Your task to perform on an android device: Open settings on Google Maps Image 0: 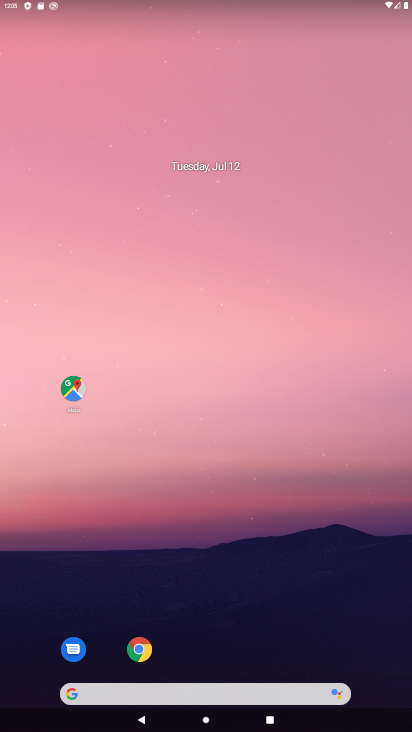
Step 0: drag from (247, 658) to (138, 0)
Your task to perform on an android device: Open settings on Google Maps Image 1: 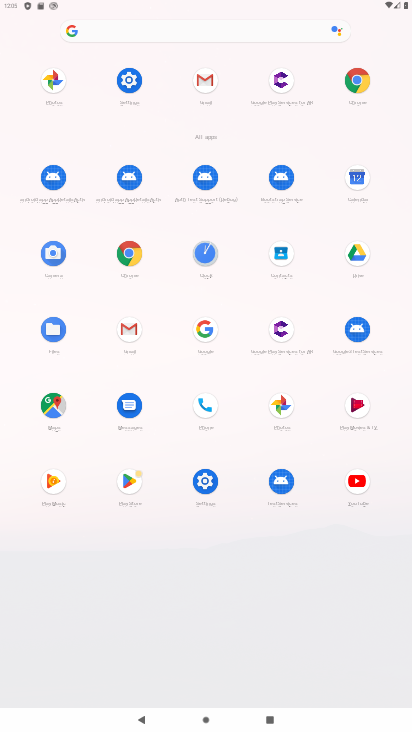
Step 1: click (52, 424)
Your task to perform on an android device: Open settings on Google Maps Image 2: 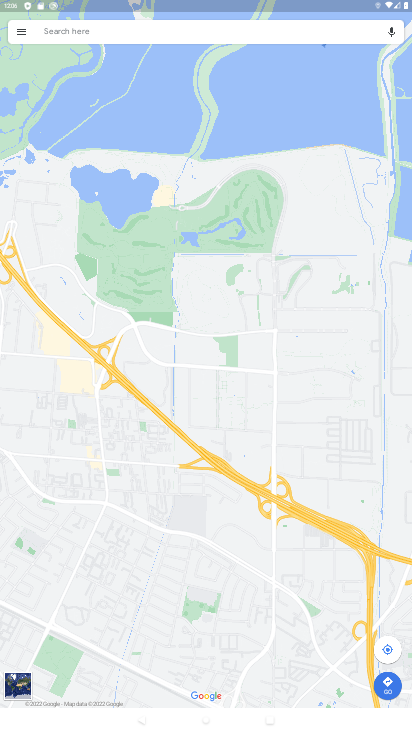
Step 2: task complete